Your task to perform on an android device: Open Chrome and go to the settings page Image 0: 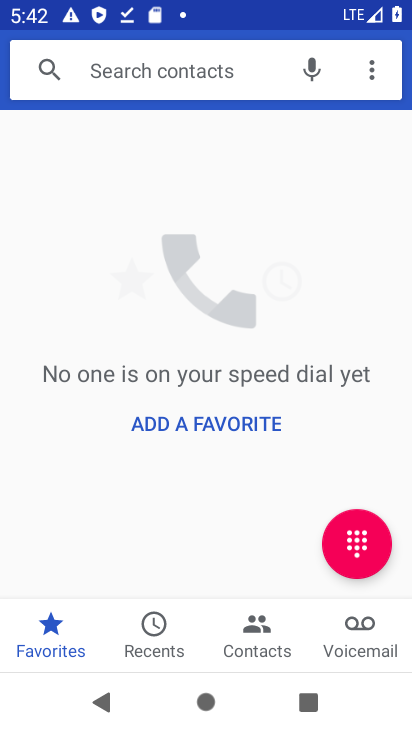
Step 0: drag from (195, 560) to (249, 201)
Your task to perform on an android device: Open Chrome and go to the settings page Image 1: 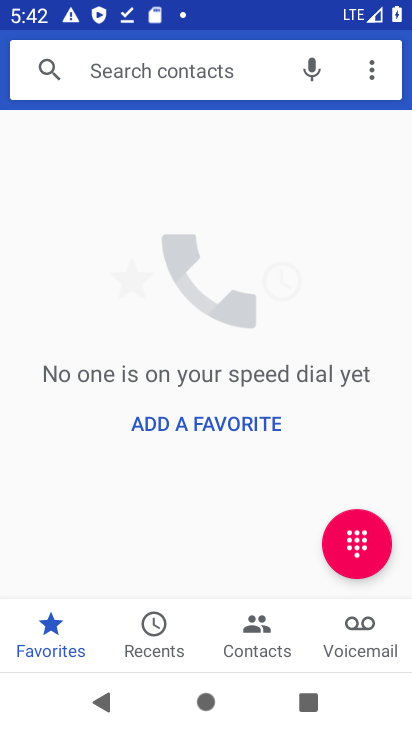
Step 1: press home button
Your task to perform on an android device: Open Chrome and go to the settings page Image 2: 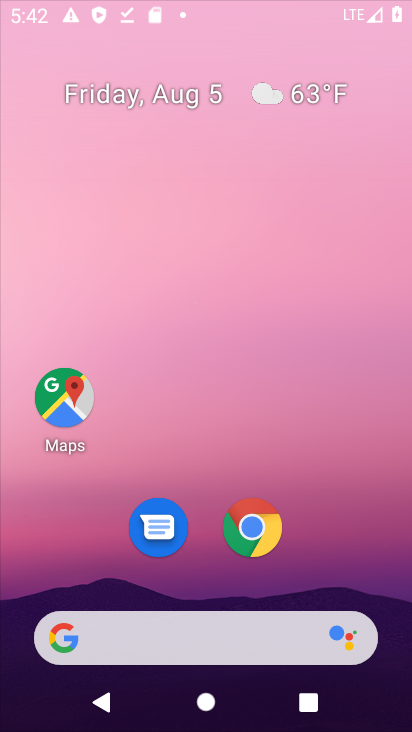
Step 2: drag from (202, 600) to (224, 187)
Your task to perform on an android device: Open Chrome and go to the settings page Image 3: 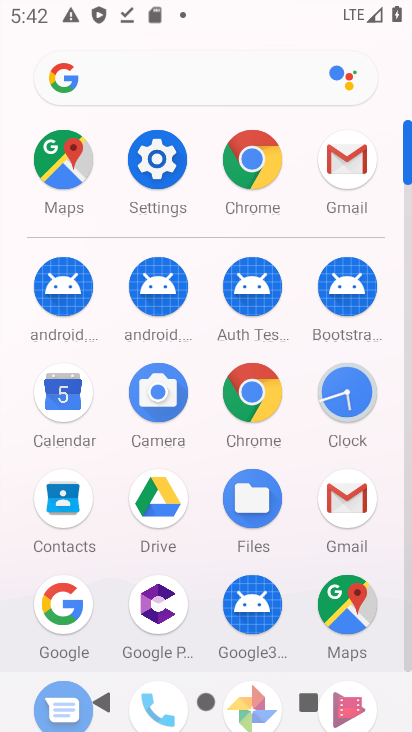
Step 3: click (251, 163)
Your task to perform on an android device: Open Chrome and go to the settings page Image 4: 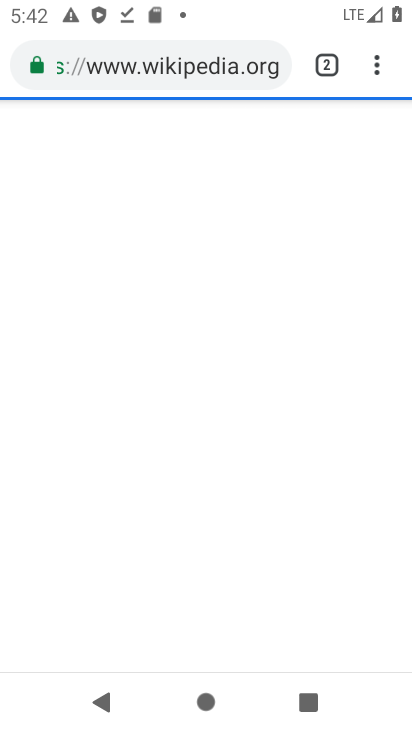
Step 4: task complete